Your task to perform on an android device: toggle javascript in the chrome app Image 0: 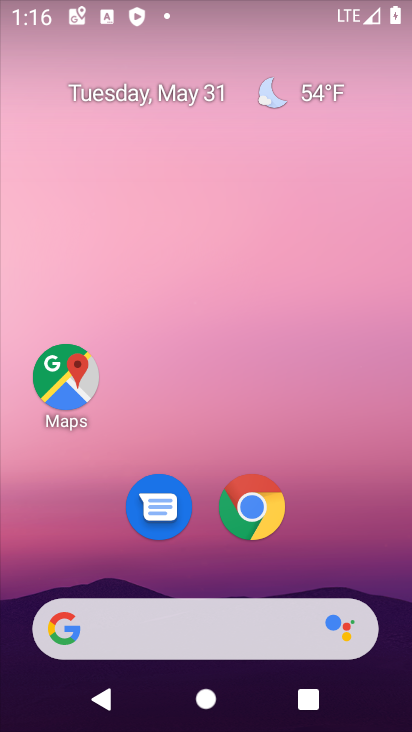
Step 0: drag from (390, 626) to (307, 104)
Your task to perform on an android device: toggle javascript in the chrome app Image 1: 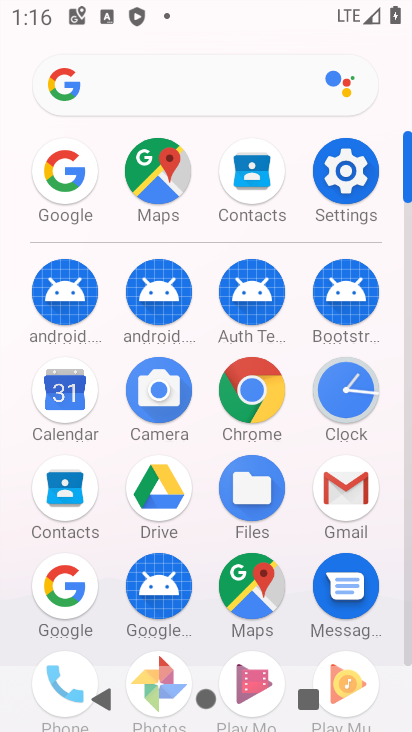
Step 1: click (257, 381)
Your task to perform on an android device: toggle javascript in the chrome app Image 2: 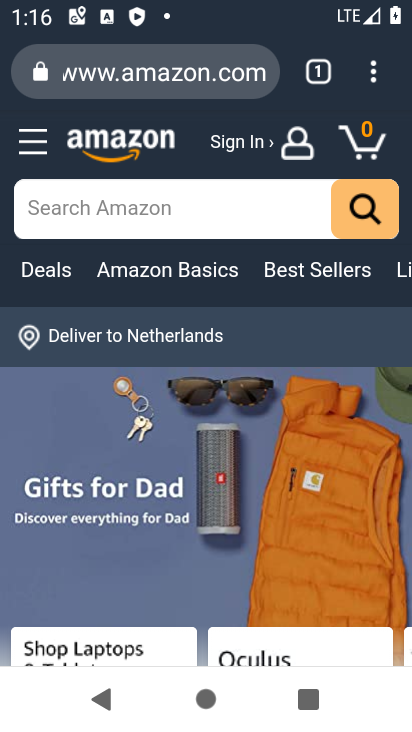
Step 2: press back button
Your task to perform on an android device: toggle javascript in the chrome app Image 3: 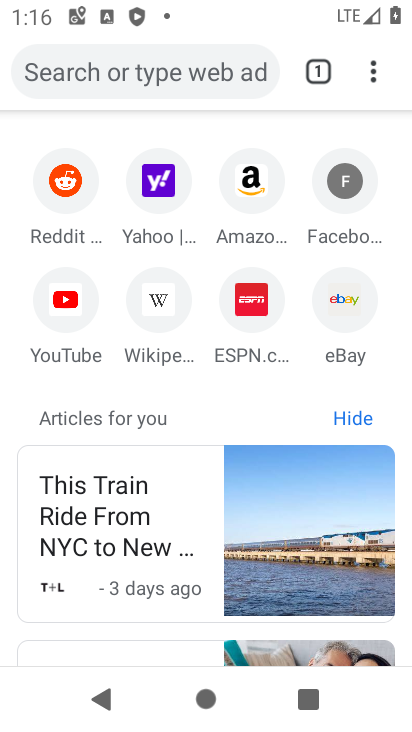
Step 3: click (374, 75)
Your task to perform on an android device: toggle javascript in the chrome app Image 4: 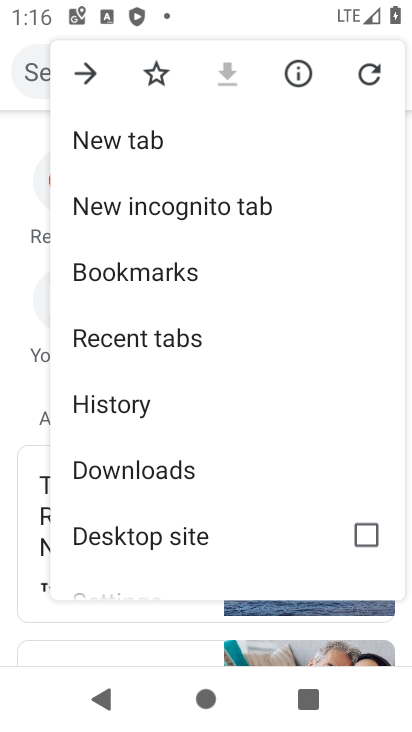
Step 4: drag from (149, 556) to (178, 190)
Your task to perform on an android device: toggle javascript in the chrome app Image 5: 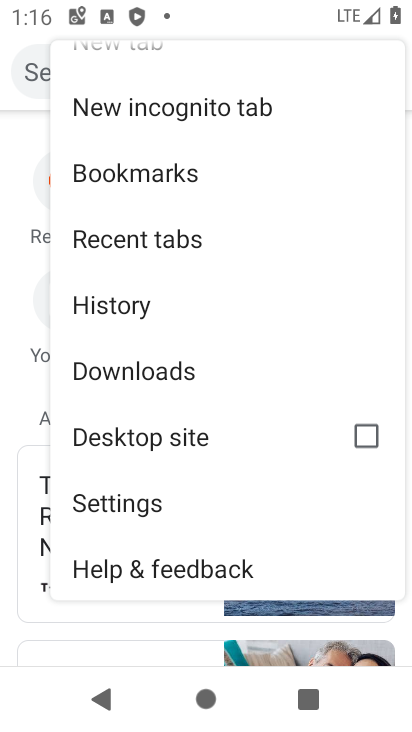
Step 5: click (117, 497)
Your task to perform on an android device: toggle javascript in the chrome app Image 6: 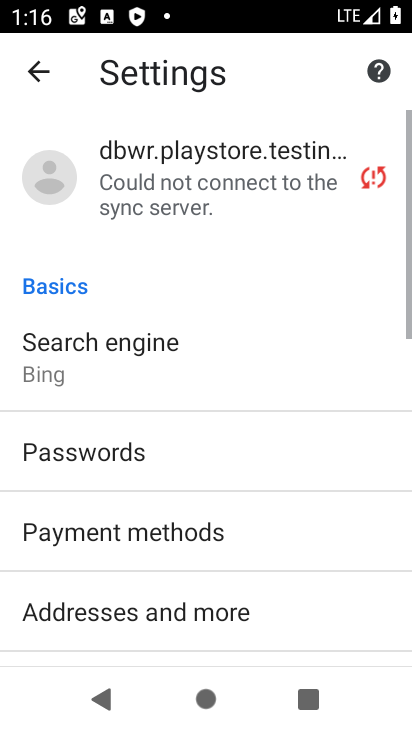
Step 6: drag from (129, 630) to (146, 171)
Your task to perform on an android device: toggle javascript in the chrome app Image 7: 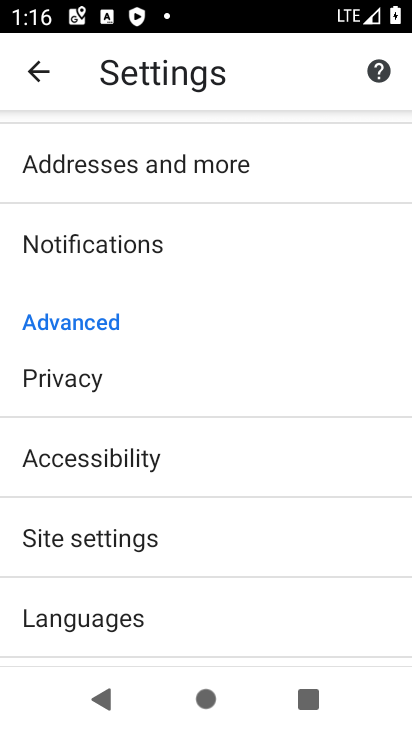
Step 7: click (126, 528)
Your task to perform on an android device: toggle javascript in the chrome app Image 8: 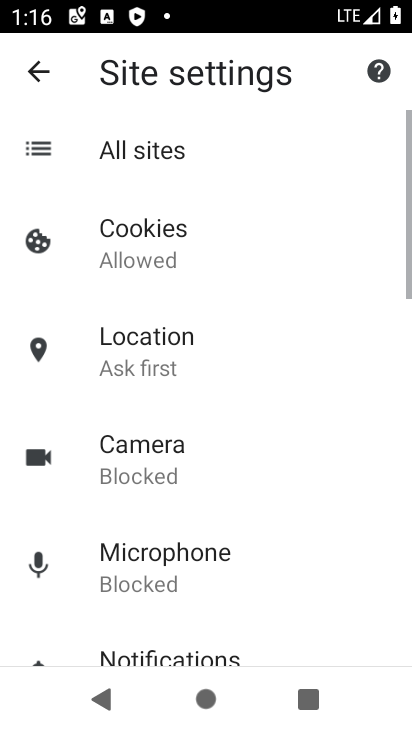
Step 8: drag from (196, 591) to (211, 161)
Your task to perform on an android device: toggle javascript in the chrome app Image 9: 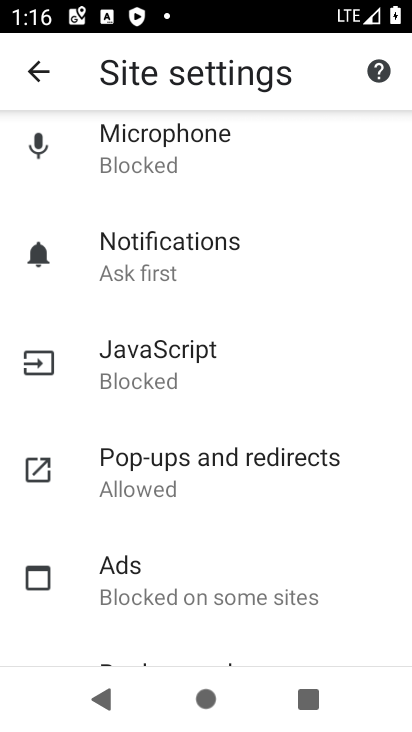
Step 9: click (130, 375)
Your task to perform on an android device: toggle javascript in the chrome app Image 10: 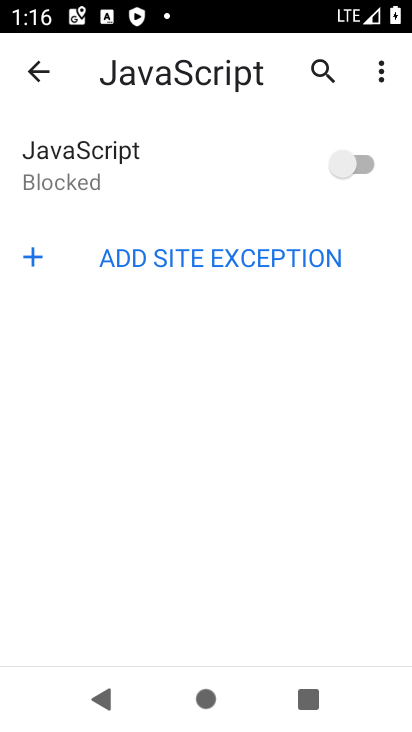
Step 10: click (376, 155)
Your task to perform on an android device: toggle javascript in the chrome app Image 11: 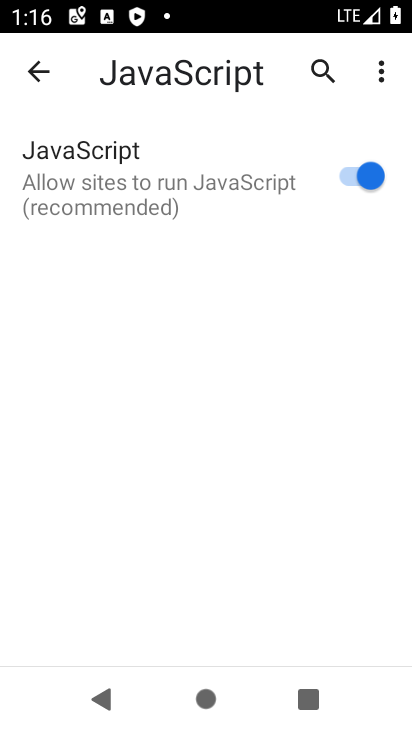
Step 11: task complete